Your task to perform on an android device: check google app version Image 0: 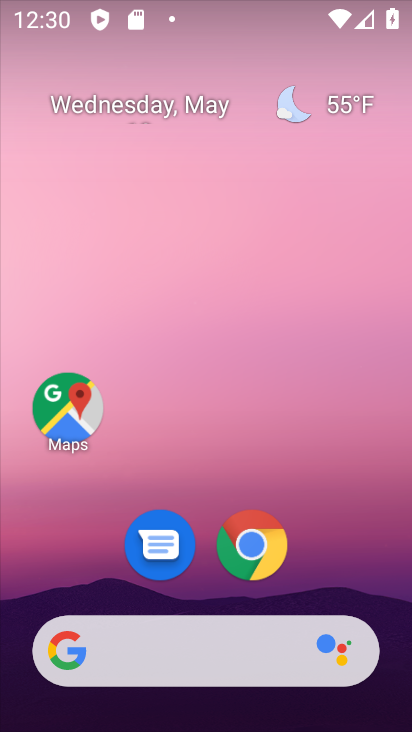
Step 0: drag from (354, 599) to (362, 138)
Your task to perform on an android device: check google app version Image 1: 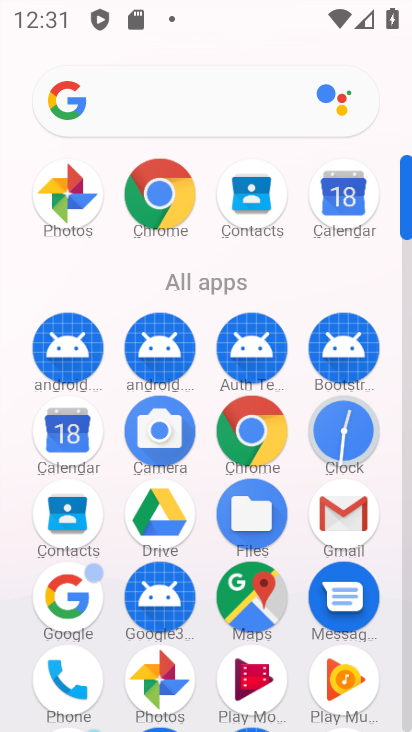
Step 1: click (82, 577)
Your task to perform on an android device: check google app version Image 2: 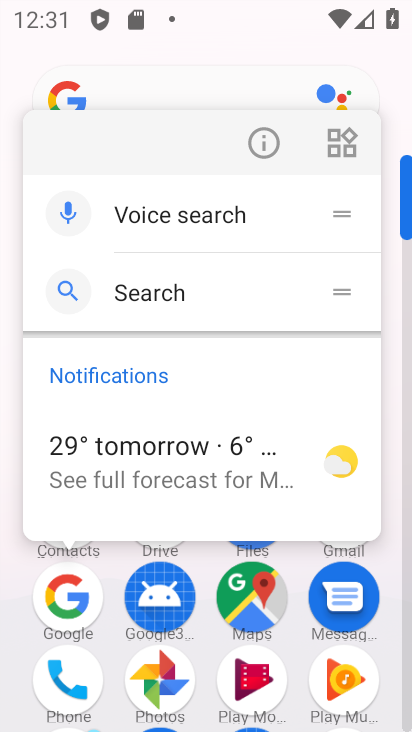
Step 2: click (272, 140)
Your task to perform on an android device: check google app version Image 3: 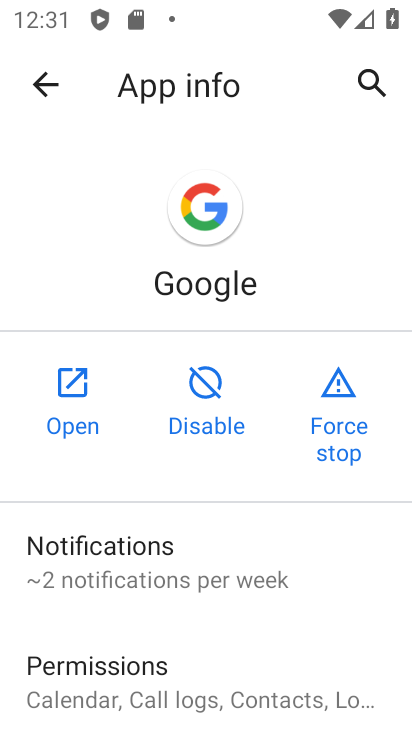
Step 3: drag from (290, 504) to (342, 15)
Your task to perform on an android device: check google app version Image 4: 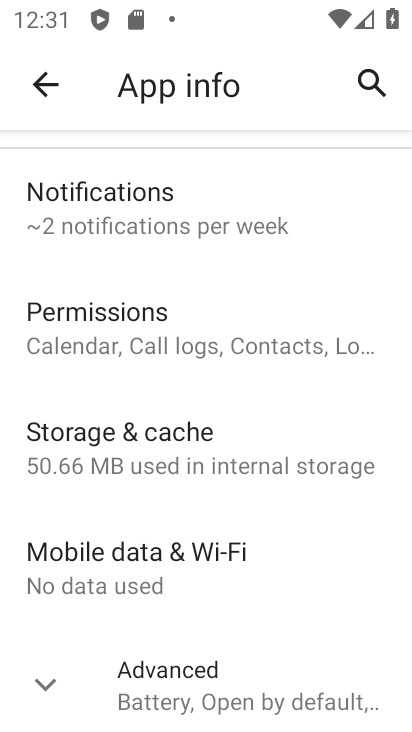
Step 4: click (255, 687)
Your task to perform on an android device: check google app version Image 5: 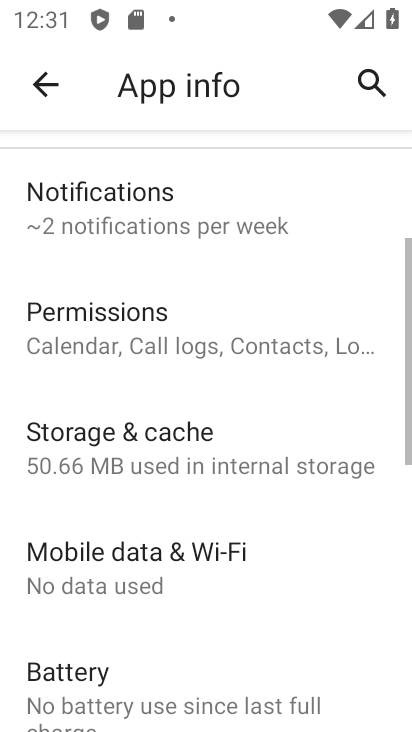
Step 5: task complete